Your task to perform on an android device: uninstall "Grab" Image 0: 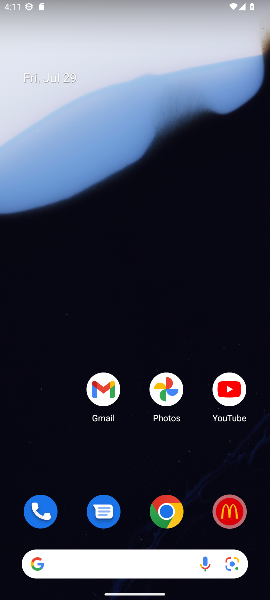
Step 0: drag from (28, 577) to (190, 217)
Your task to perform on an android device: uninstall "Grab" Image 1: 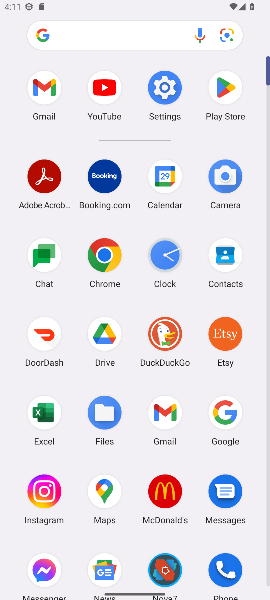
Step 1: click (232, 104)
Your task to perform on an android device: uninstall "Grab" Image 2: 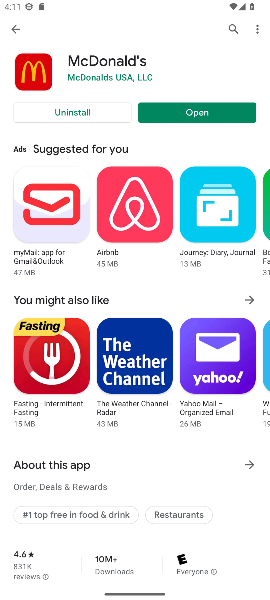
Step 2: click (14, 19)
Your task to perform on an android device: uninstall "Grab" Image 3: 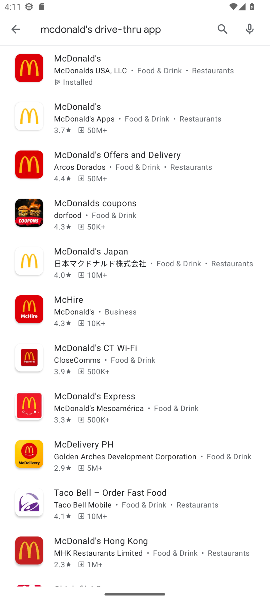
Step 3: click (20, 33)
Your task to perform on an android device: uninstall "Grab" Image 4: 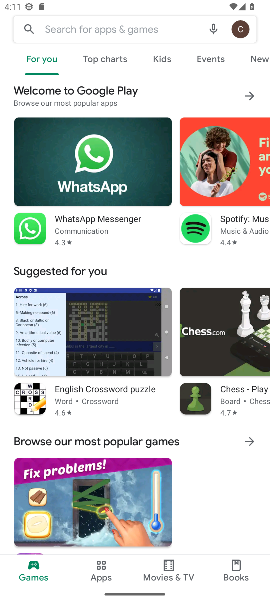
Step 4: click (64, 24)
Your task to perform on an android device: uninstall "Grab" Image 5: 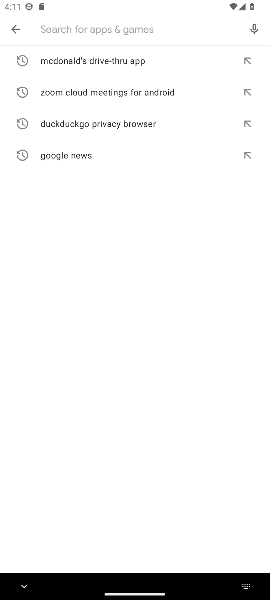
Step 5: type "Grab"
Your task to perform on an android device: uninstall "Grab" Image 6: 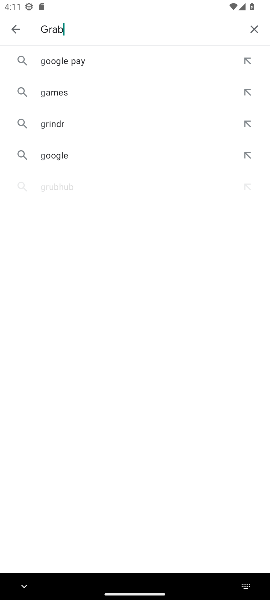
Step 6: type ""
Your task to perform on an android device: uninstall "Grab" Image 7: 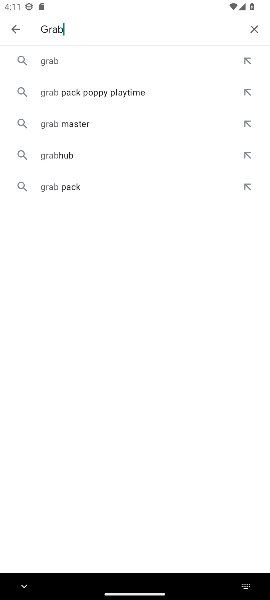
Step 7: click (54, 61)
Your task to perform on an android device: uninstall "Grab" Image 8: 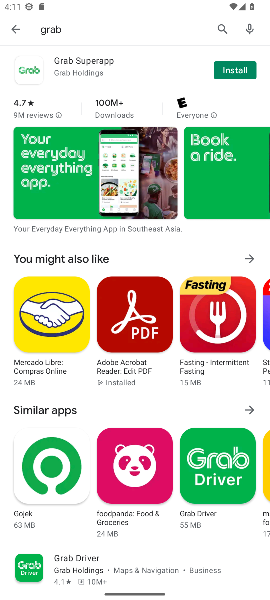
Step 8: click (246, 69)
Your task to perform on an android device: uninstall "Grab" Image 9: 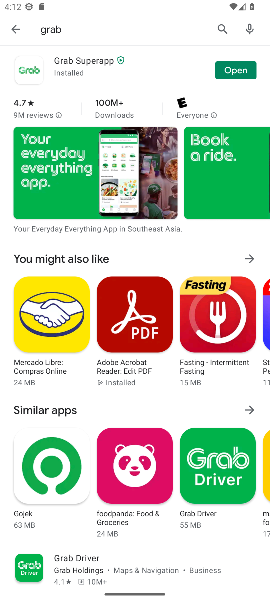
Step 9: task complete